Your task to perform on an android device: Clear the shopping cart on walmart. Image 0: 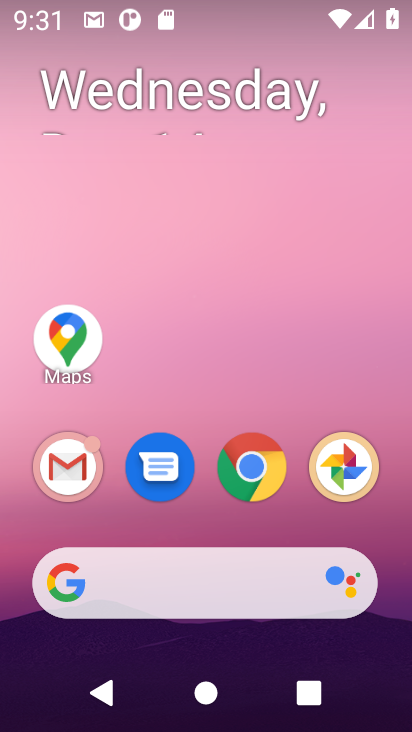
Step 0: click (143, 581)
Your task to perform on an android device: Clear the shopping cart on walmart. Image 1: 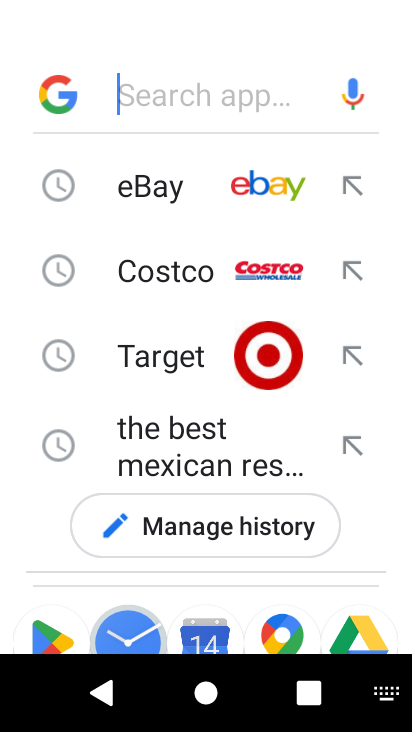
Step 1: type "walmart"
Your task to perform on an android device: Clear the shopping cart on walmart. Image 2: 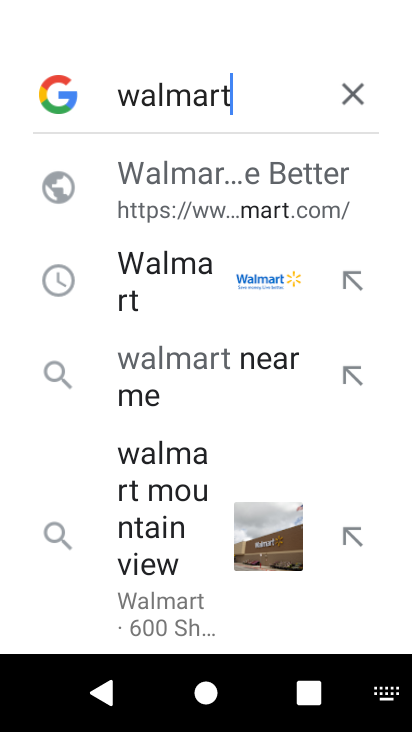
Step 2: click (227, 168)
Your task to perform on an android device: Clear the shopping cart on walmart. Image 3: 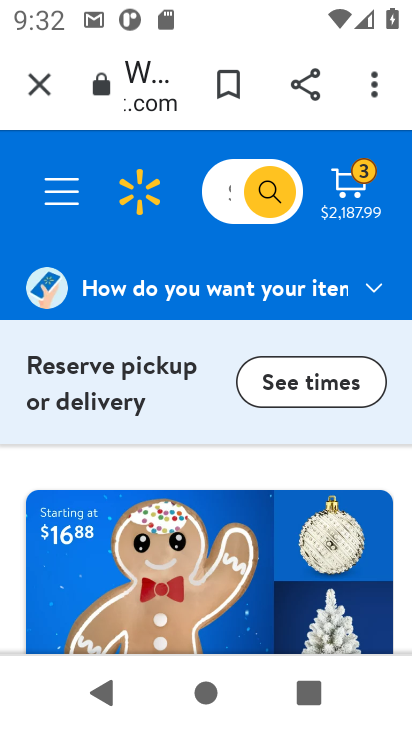
Step 3: task complete